Your task to perform on an android device: Open the map Image 0: 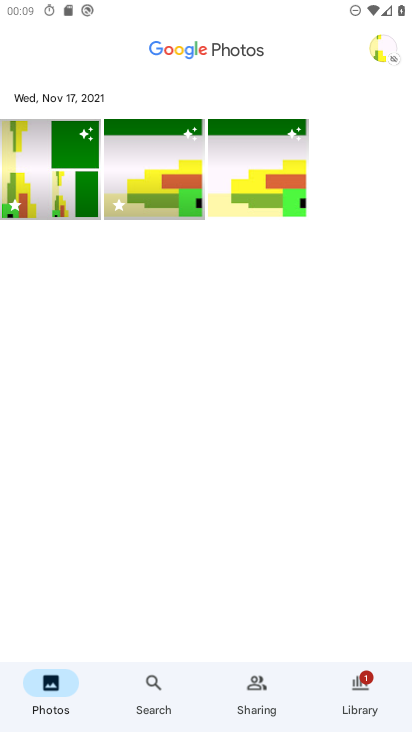
Step 0: press home button
Your task to perform on an android device: Open the map Image 1: 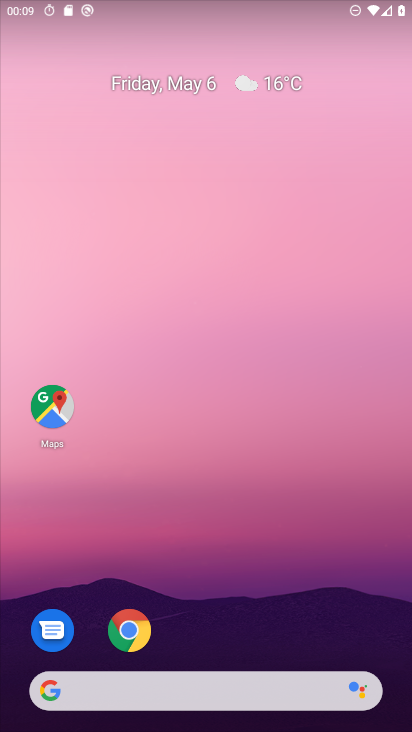
Step 1: click (52, 395)
Your task to perform on an android device: Open the map Image 2: 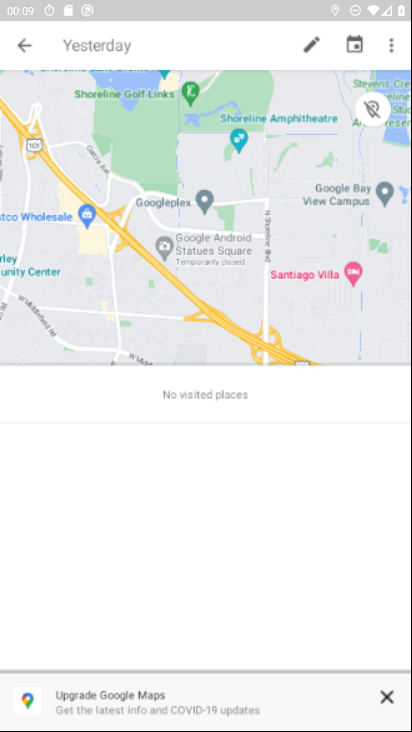
Step 2: task complete